Your task to perform on an android device: Set the phone to "Do not disturb". Image 0: 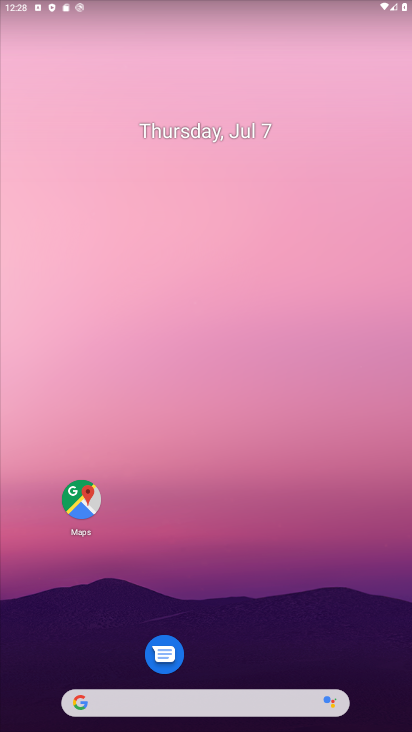
Step 0: drag from (207, 7) to (139, 651)
Your task to perform on an android device: Set the phone to "Do not disturb". Image 1: 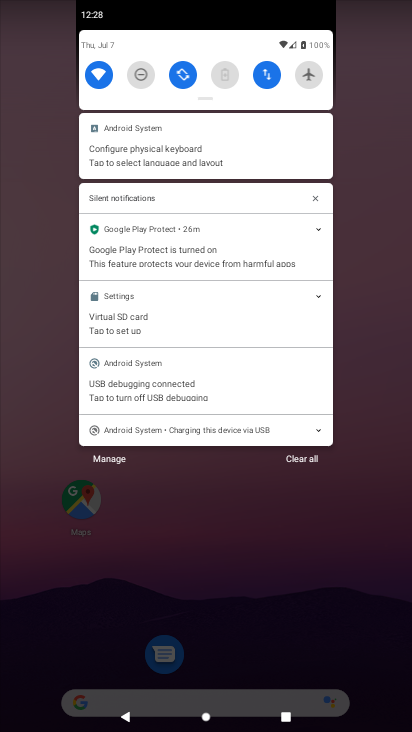
Step 1: click (135, 84)
Your task to perform on an android device: Set the phone to "Do not disturb". Image 2: 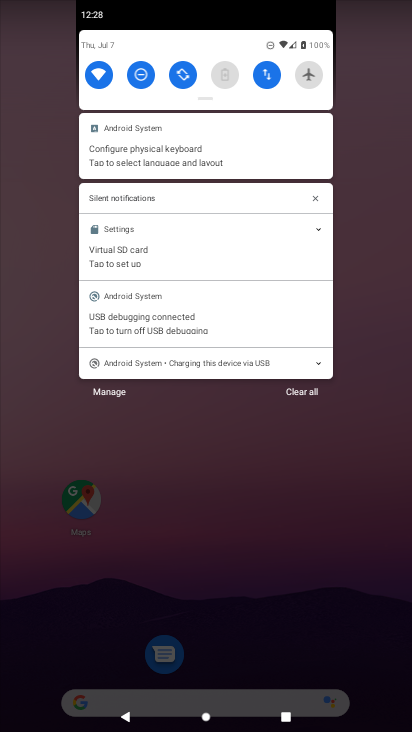
Step 2: task complete